Your task to perform on an android device: open chrome and create a bookmark for the current page Image 0: 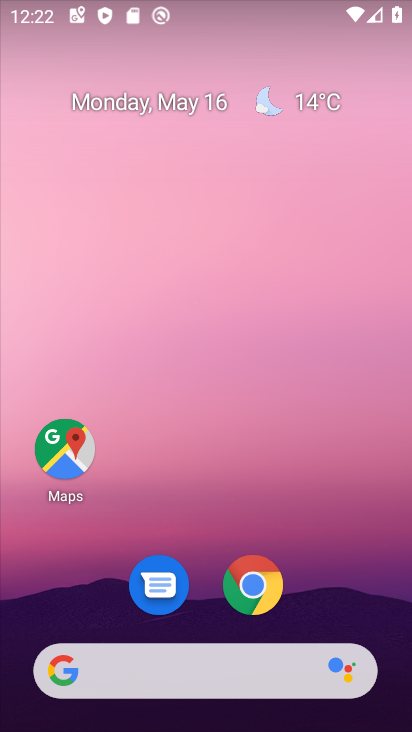
Step 0: click (266, 576)
Your task to perform on an android device: open chrome and create a bookmark for the current page Image 1: 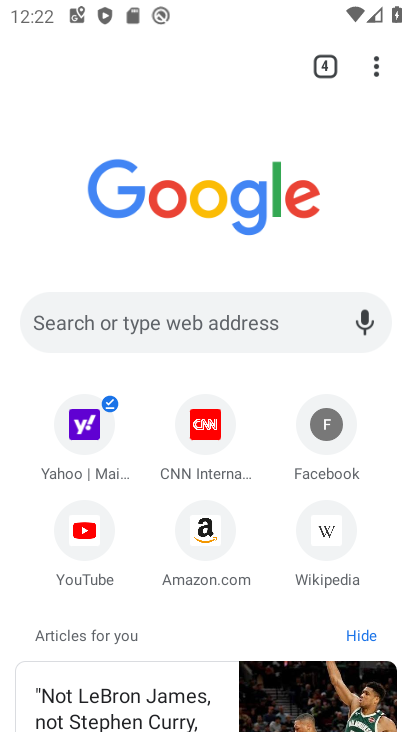
Step 1: click (374, 58)
Your task to perform on an android device: open chrome and create a bookmark for the current page Image 2: 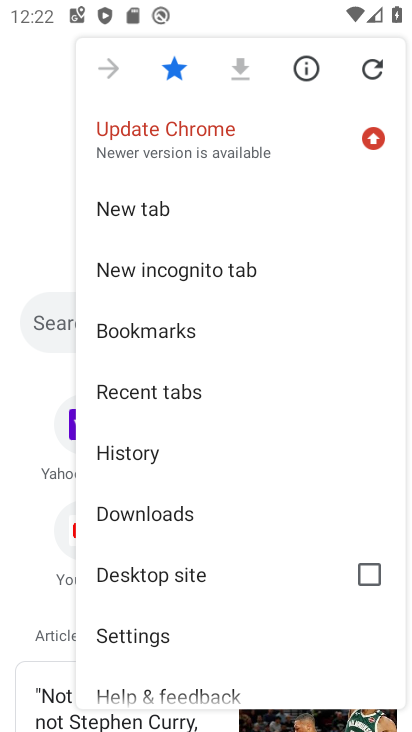
Step 2: click (47, 235)
Your task to perform on an android device: open chrome and create a bookmark for the current page Image 3: 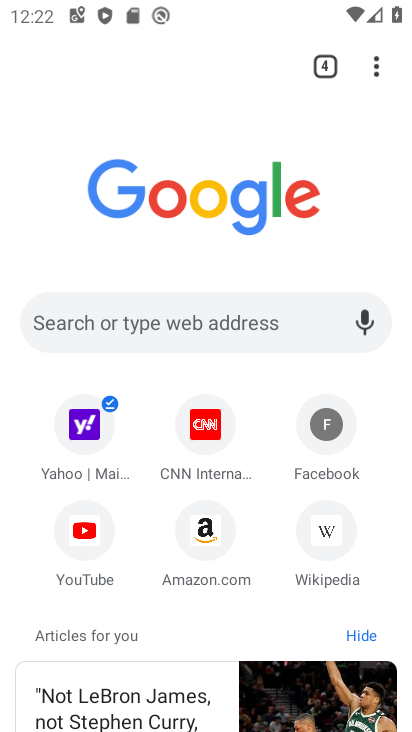
Step 3: click (320, 60)
Your task to perform on an android device: open chrome and create a bookmark for the current page Image 4: 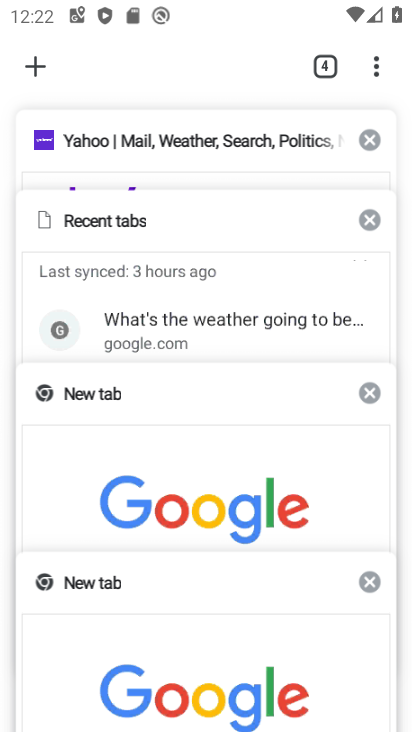
Step 4: click (214, 248)
Your task to perform on an android device: open chrome and create a bookmark for the current page Image 5: 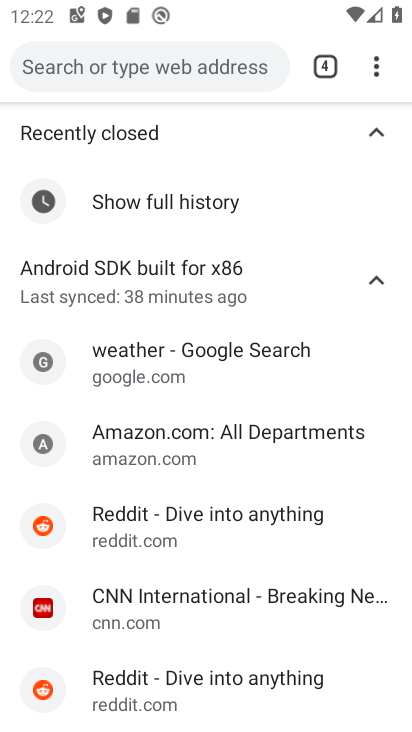
Step 5: click (374, 64)
Your task to perform on an android device: open chrome and create a bookmark for the current page Image 6: 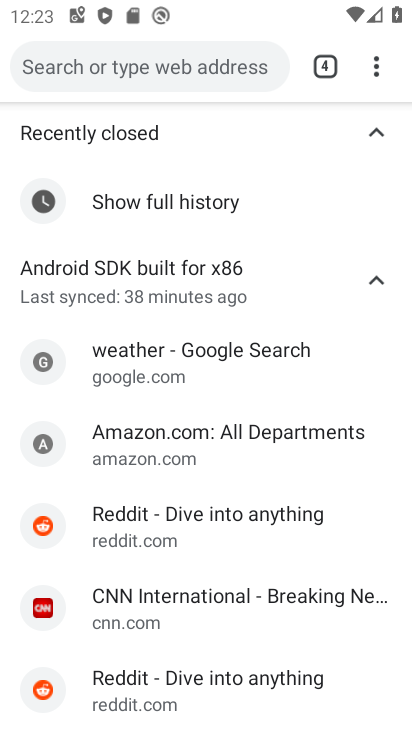
Step 6: press back button
Your task to perform on an android device: open chrome and create a bookmark for the current page Image 7: 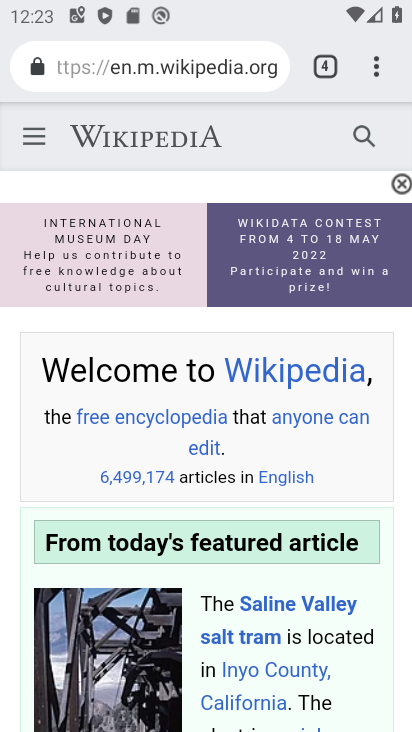
Step 7: click (377, 64)
Your task to perform on an android device: open chrome and create a bookmark for the current page Image 8: 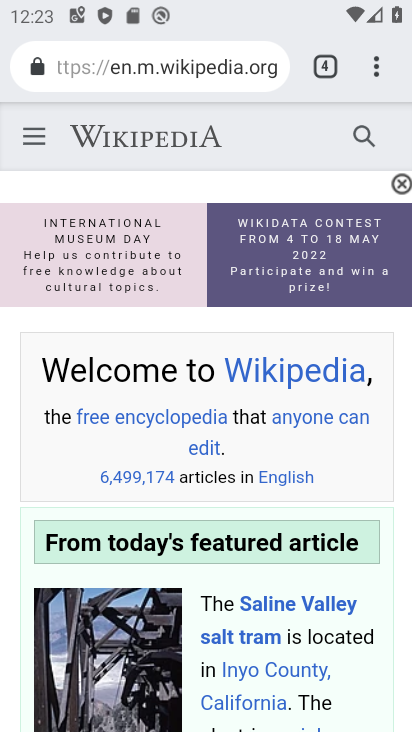
Step 8: task complete